Your task to perform on an android device: Go to Yahoo.com Image 0: 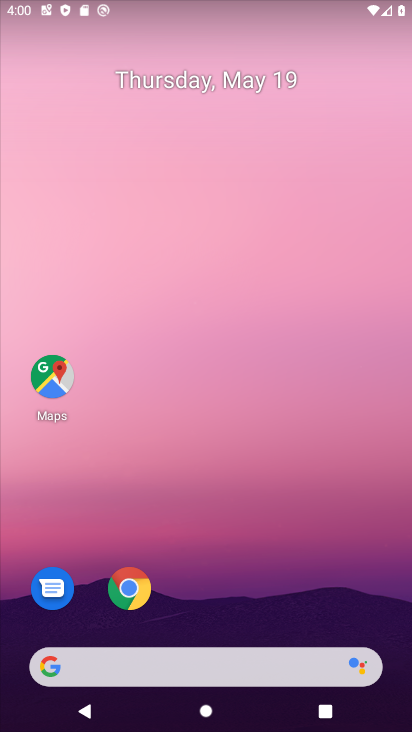
Step 0: click (125, 597)
Your task to perform on an android device: Go to Yahoo.com Image 1: 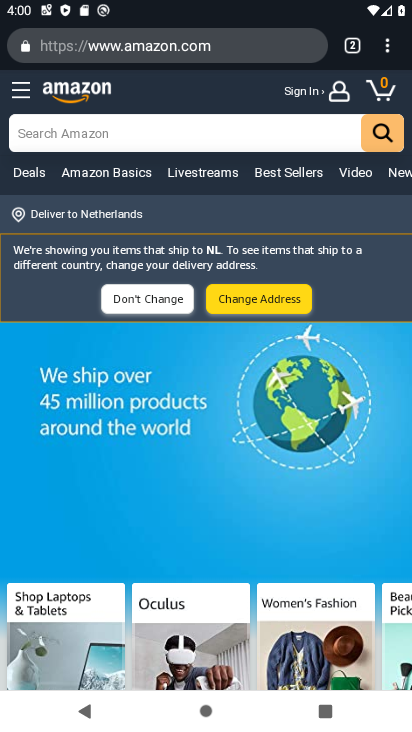
Step 1: click (355, 54)
Your task to perform on an android device: Go to Yahoo.com Image 2: 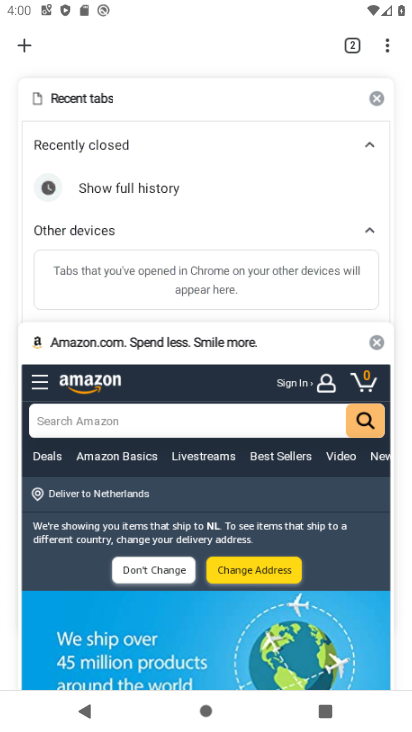
Step 2: click (18, 49)
Your task to perform on an android device: Go to Yahoo.com Image 3: 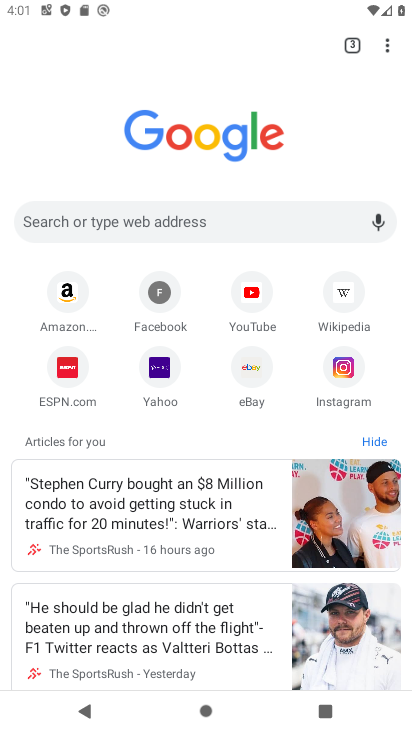
Step 3: click (163, 377)
Your task to perform on an android device: Go to Yahoo.com Image 4: 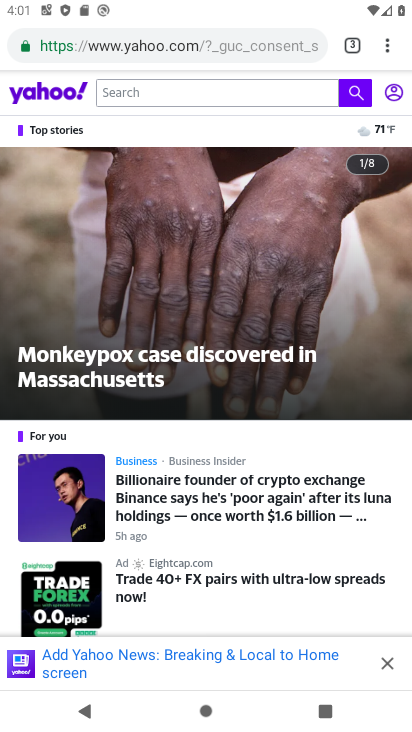
Step 4: task complete